Your task to perform on an android device: Go to calendar. Show me events next week Image 0: 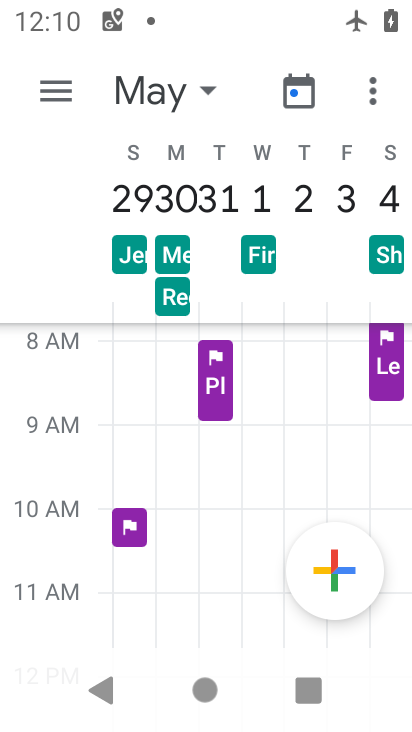
Step 0: press home button
Your task to perform on an android device: Go to calendar. Show me events next week Image 1: 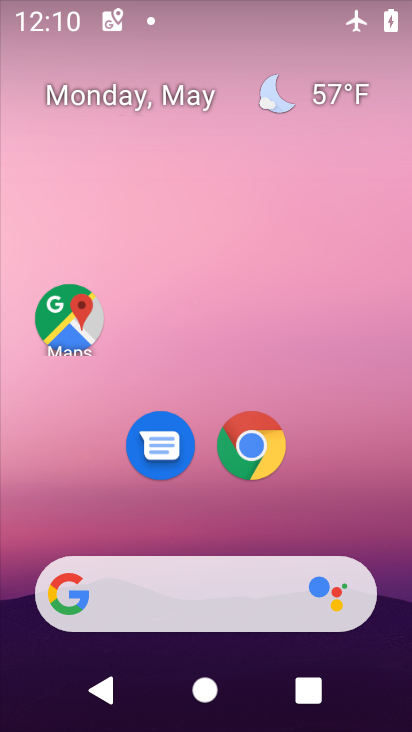
Step 1: drag from (321, 318) to (313, 244)
Your task to perform on an android device: Go to calendar. Show me events next week Image 2: 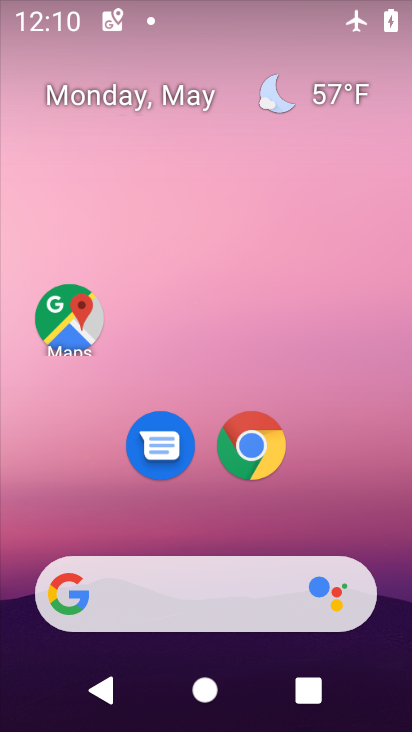
Step 2: drag from (312, 386) to (234, 110)
Your task to perform on an android device: Go to calendar. Show me events next week Image 3: 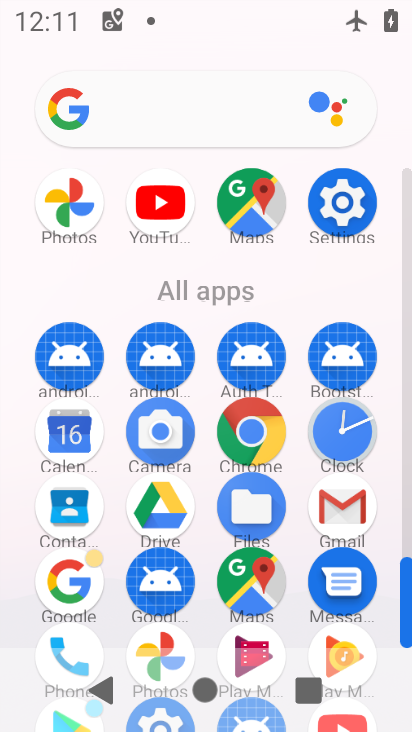
Step 3: click (73, 480)
Your task to perform on an android device: Go to calendar. Show me events next week Image 4: 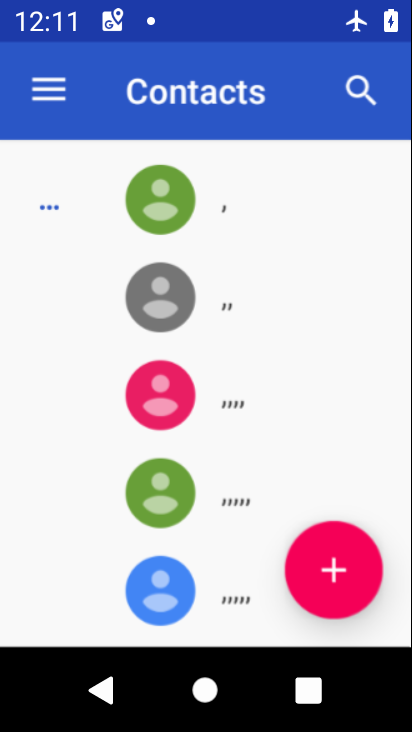
Step 4: click (59, 436)
Your task to perform on an android device: Go to calendar. Show me events next week Image 5: 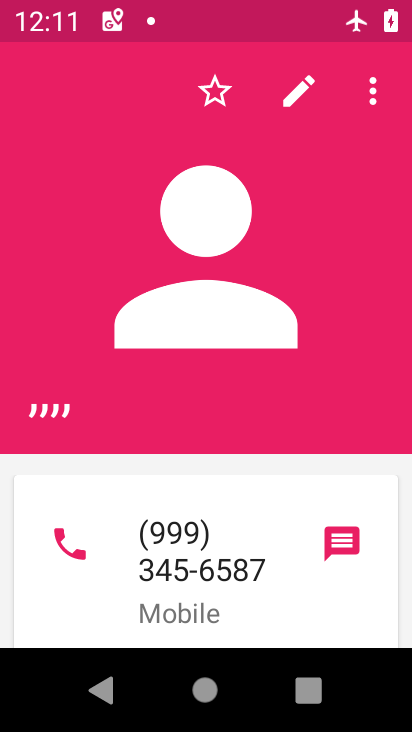
Step 5: press home button
Your task to perform on an android device: Go to calendar. Show me events next week Image 6: 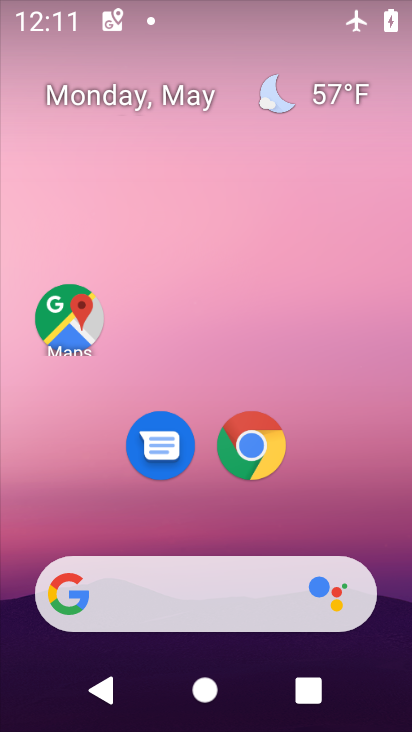
Step 6: drag from (363, 493) to (235, 200)
Your task to perform on an android device: Go to calendar. Show me events next week Image 7: 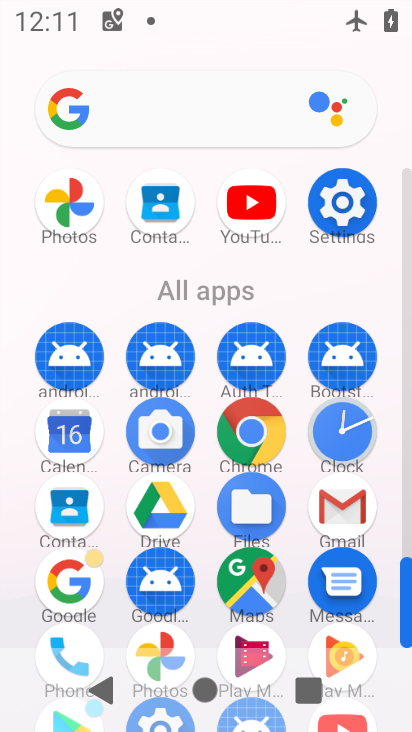
Step 7: click (81, 448)
Your task to perform on an android device: Go to calendar. Show me events next week Image 8: 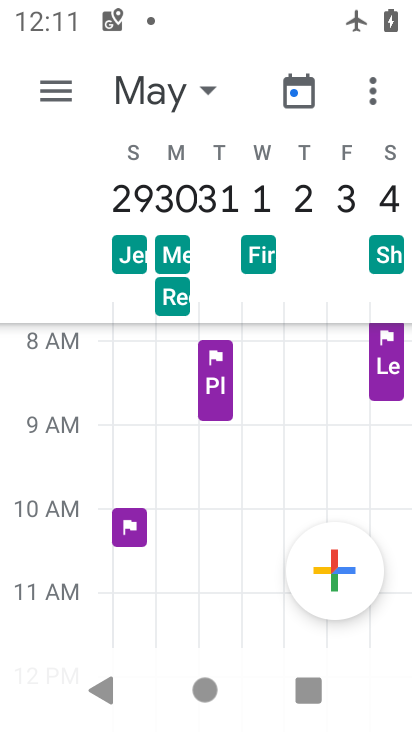
Step 8: click (83, 97)
Your task to perform on an android device: Go to calendar. Show me events next week Image 9: 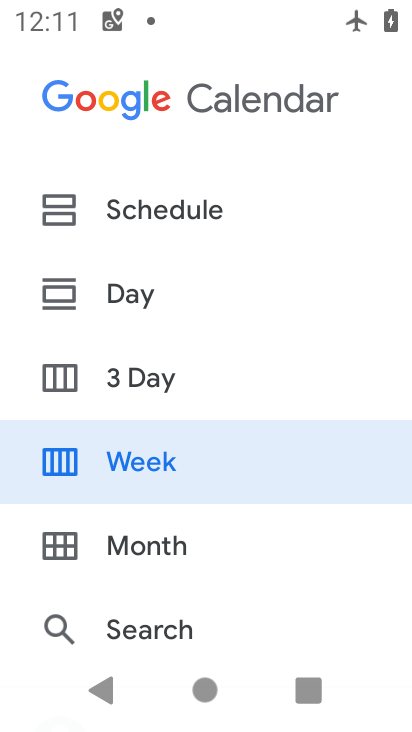
Step 9: drag from (244, 539) to (218, 190)
Your task to perform on an android device: Go to calendar. Show me events next week Image 10: 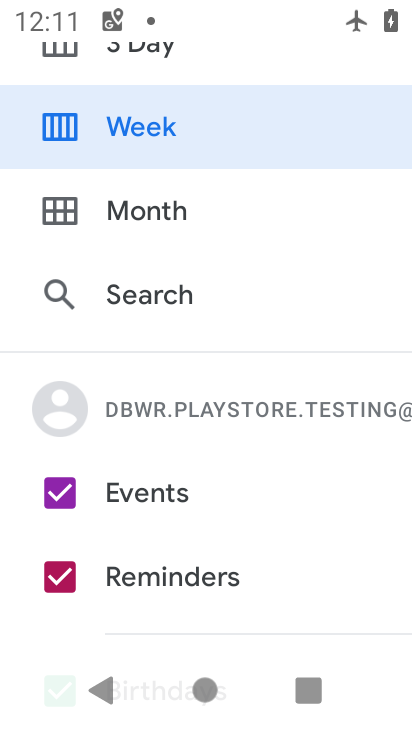
Step 10: click (170, 133)
Your task to perform on an android device: Go to calendar. Show me events next week Image 11: 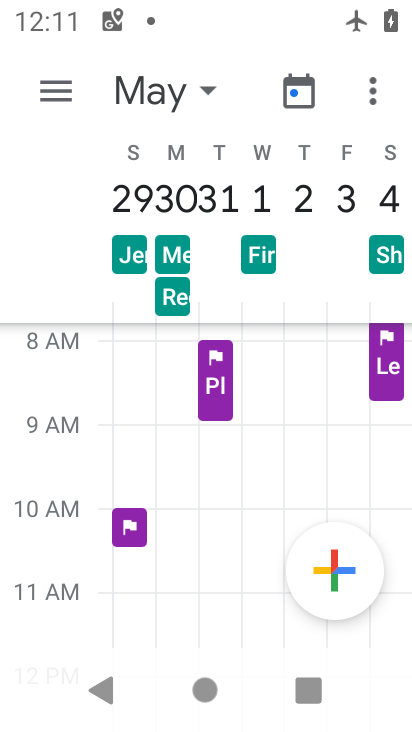
Step 11: click (48, 99)
Your task to perform on an android device: Go to calendar. Show me events next week Image 12: 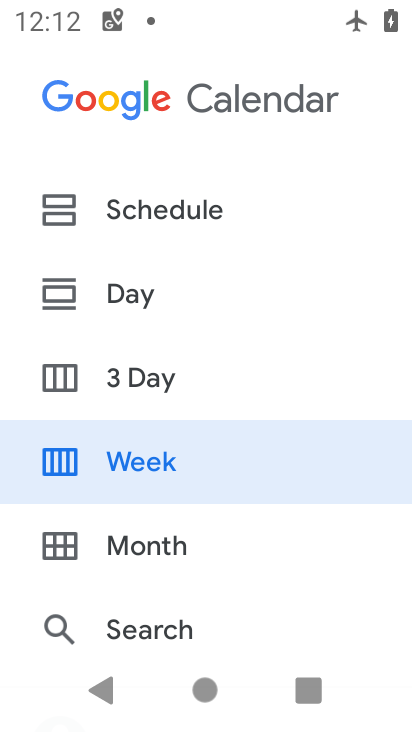
Step 12: click (211, 624)
Your task to perform on an android device: Go to calendar. Show me events next week Image 13: 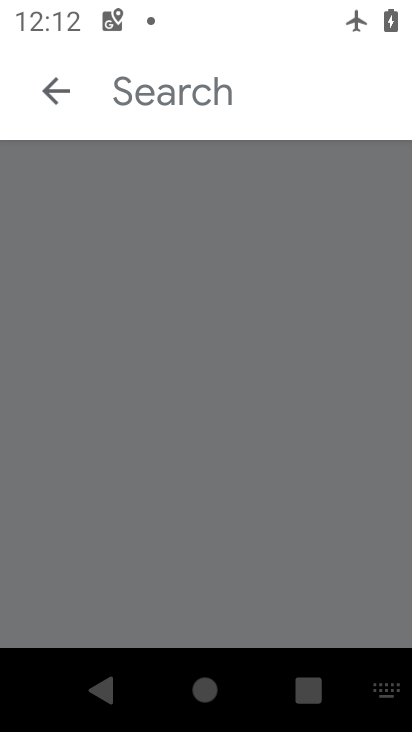
Step 13: type "event next week"
Your task to perform on an android device: Go to calendar. Show me events next week Image 14: 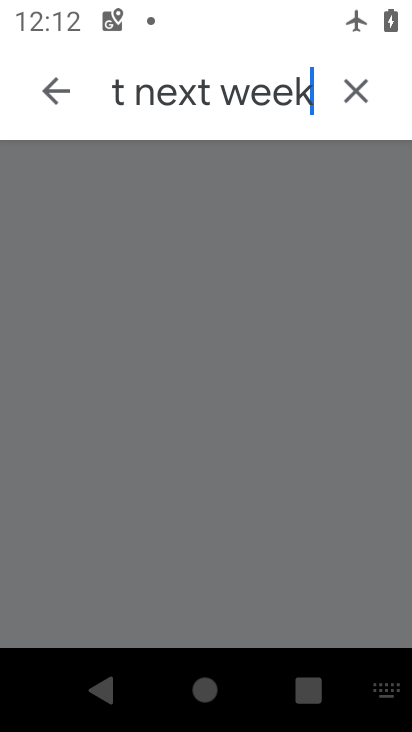
Step 14: type " "
Your task to perform on an android device: Go to calendar. Show me events next week Image 15: 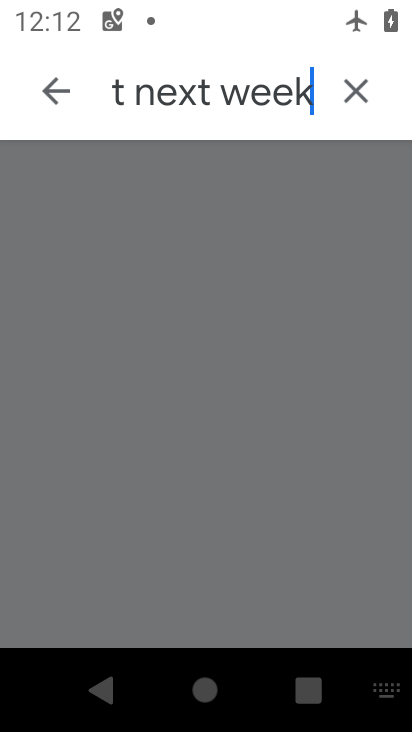
Step 15: click (316, 87)
Your task to perform on an android device: Go to calendar. Show me events next week Image 16: 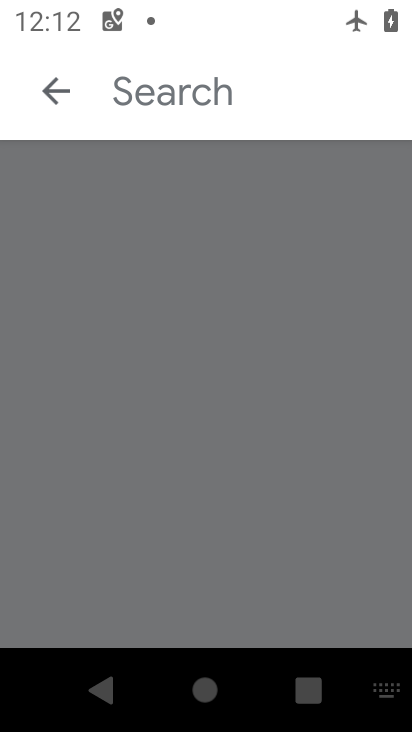
Step 16: task complete